Your task to perform on an android device: Search for the new Steph Curry shoes on Nike.com Image 0: 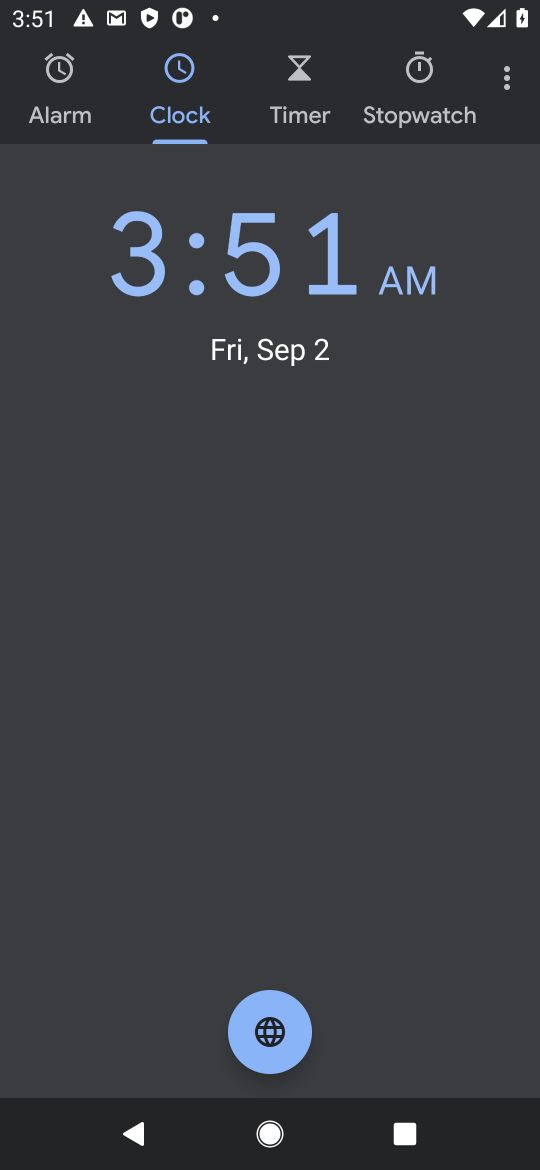
Step 0: press home button
Your task to perform on an android device: Search for the new Steph Curry shoes on Nike.com Image 1: 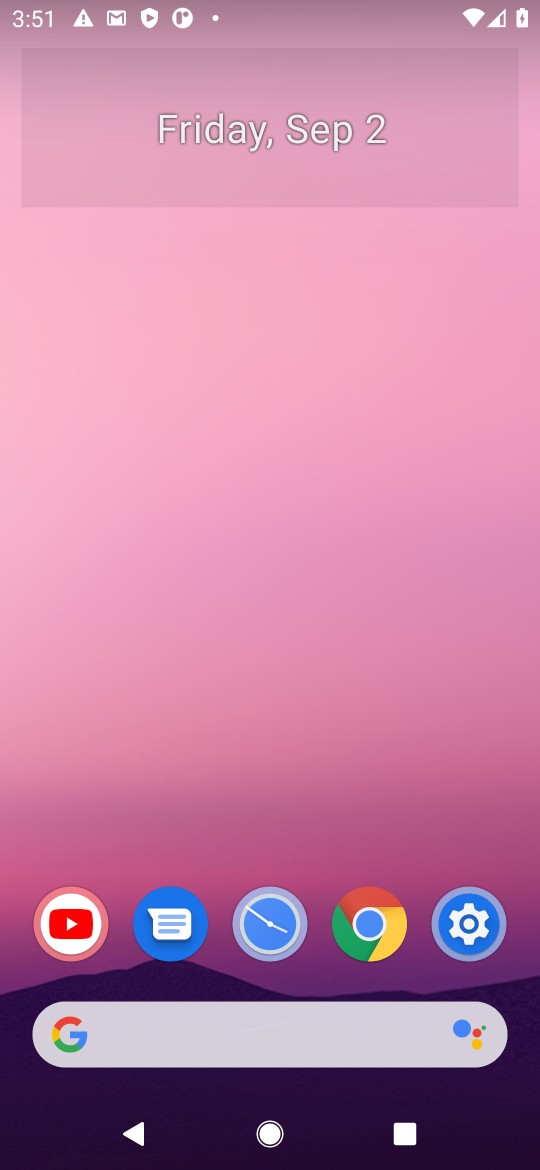
Step 1: click (396, 1026)
Your task to perform on an android device: Search for the new Steph Curry shoes on Nike.com Image 2: 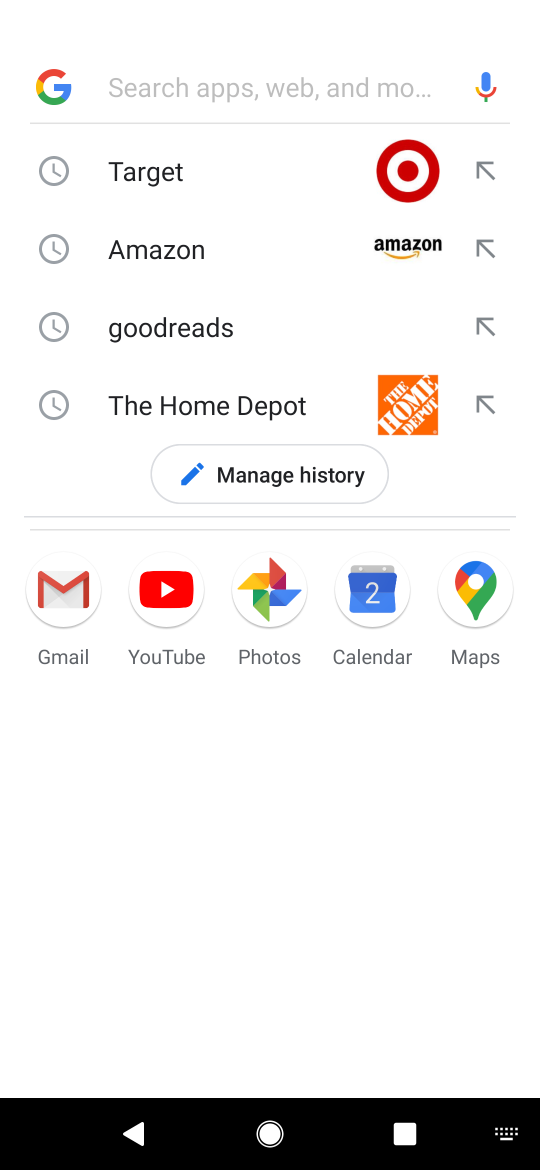
Step 2: press enter
Your task to perform on an android device: Search for the new Steph Curry shoes on Nike.com Image 3: 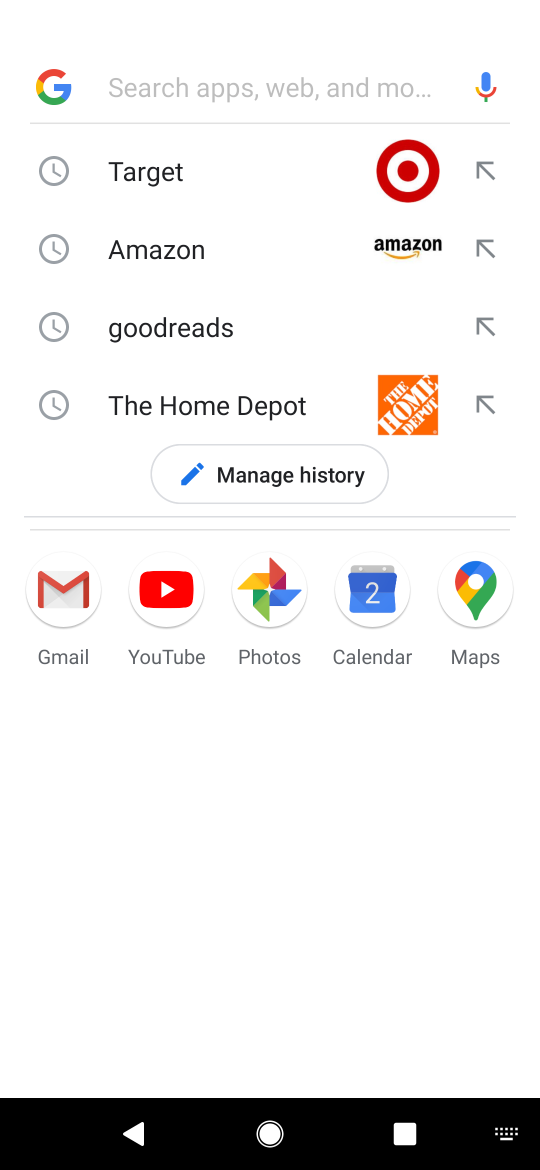
Step 3: type "nike.com"
Your task to perform on an android device: Search for the new Steph Curry shoes on Nike.com Image 4: 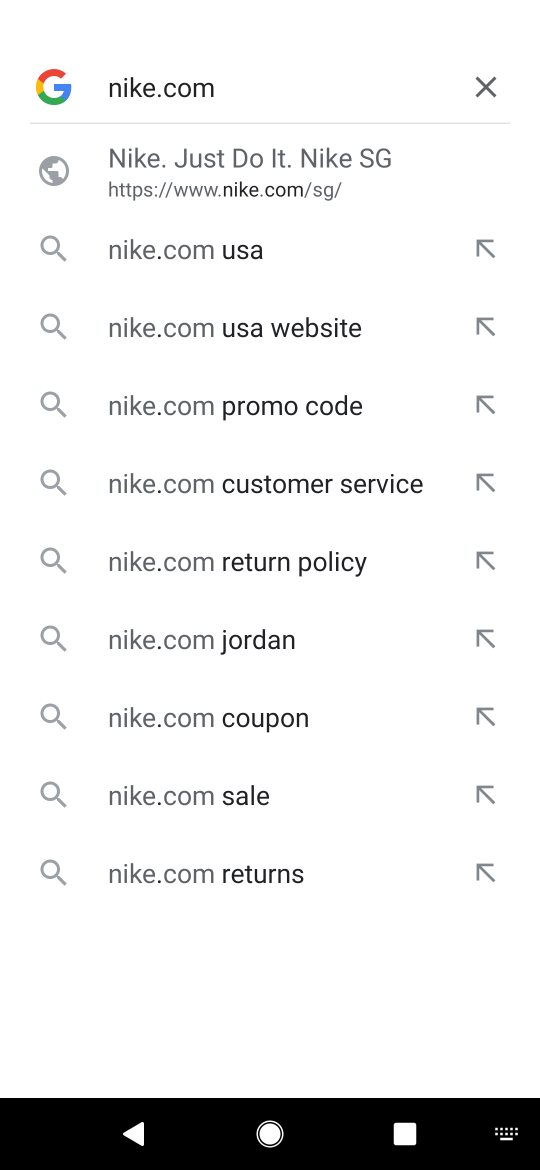
Step 4: click (287, 174)
Your task to perform on an android device: Search for the new Steph Curry shoes on Nike.com Image 5: 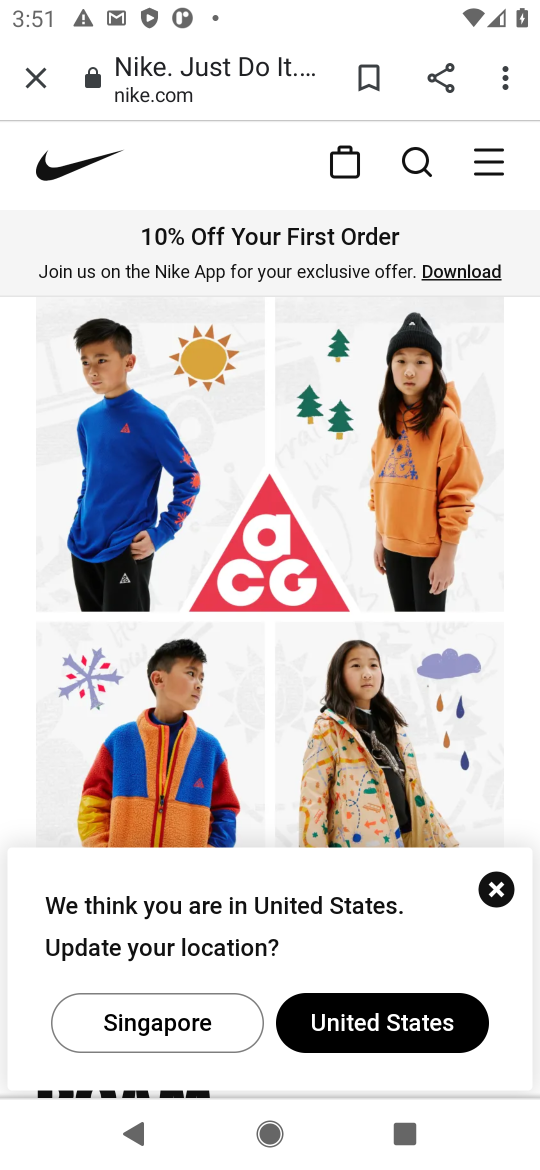
Step 5: click (419, 153)
Your task to perform on an android device: Search for the new Steph Curry shoes on Nike.com Image 6: 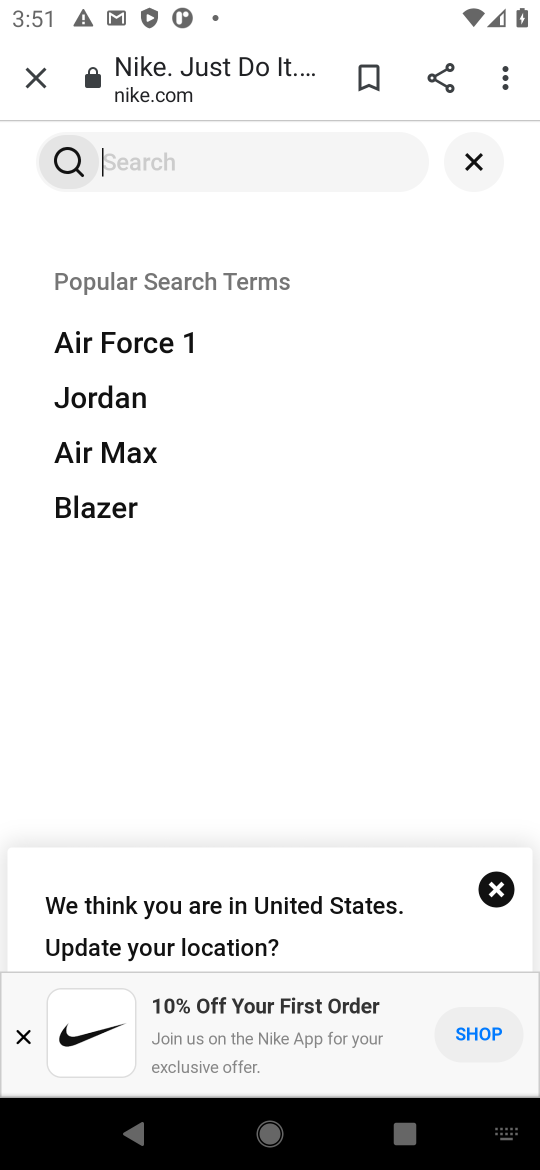
Step 6: type "step curry shoes"
Your task to perform on an android device: Search for the new Steph Curry shoes on Nike.com Image 7: 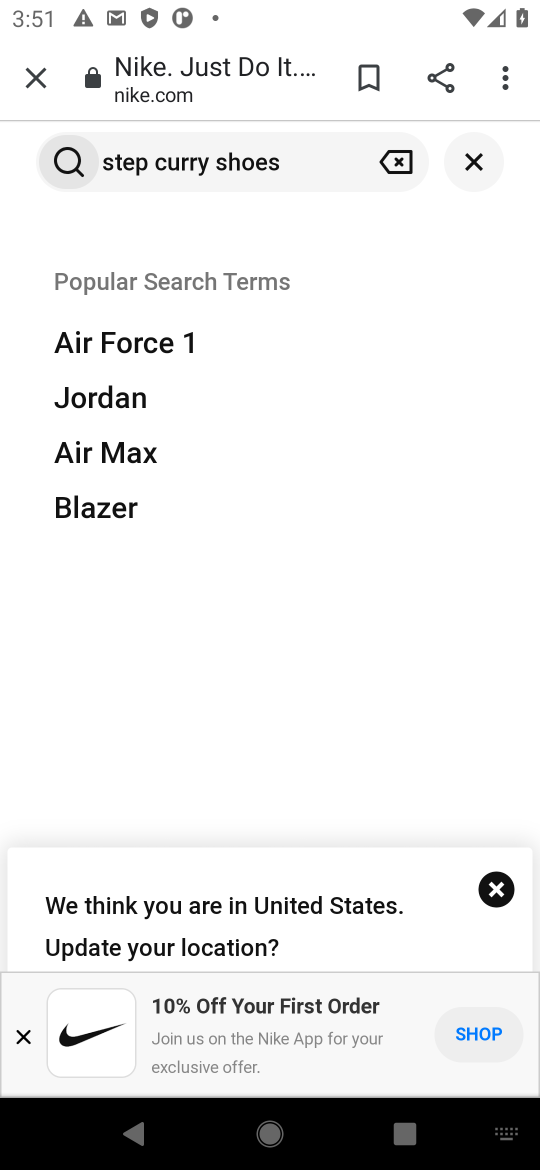
Step 7: click (66, 156)
Your task to perform on an android device: Search for the new Steph Curry shoes on Nike.com Image 8: 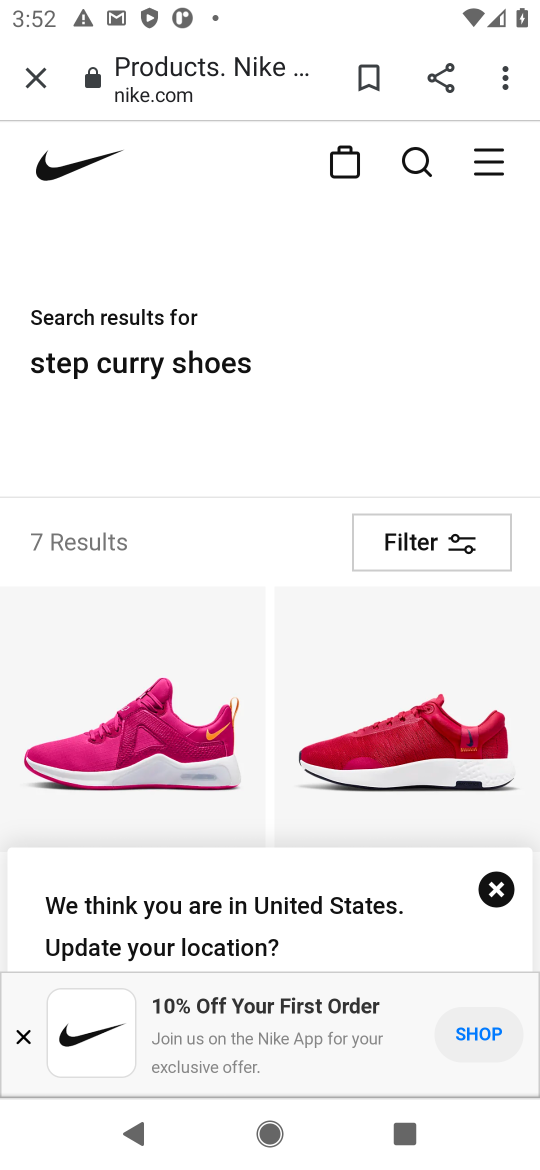
Step 8: task complete